Your task to perform on an android device: Open ESPN.com Image 0: 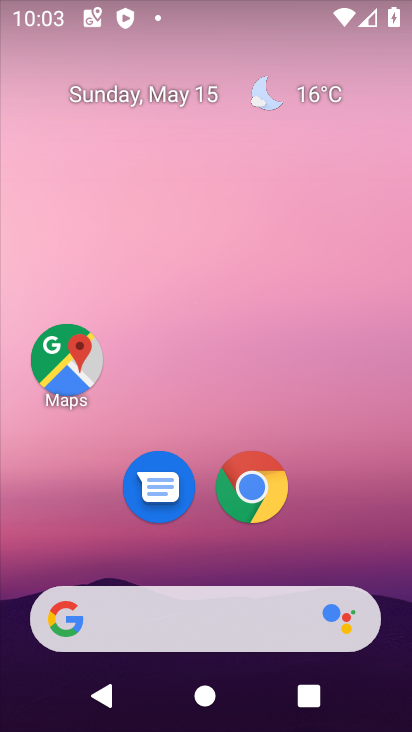
Step 0: click (253, 481)
Your task to perform on an android device: Open ESPN.com Image 1: 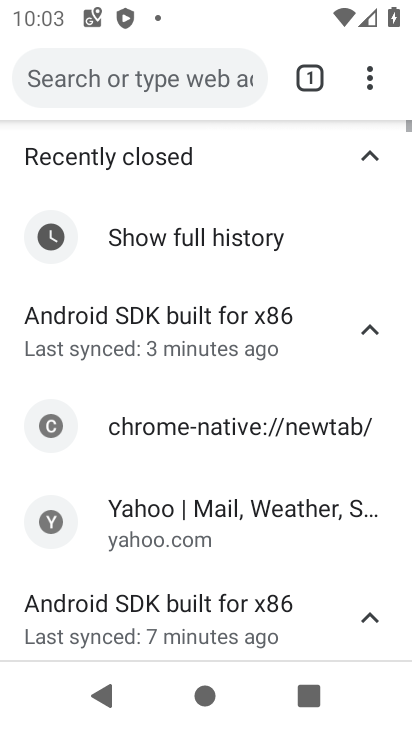
Step 1: click (102, 71)
Your task to perform on an android device: Open ESPN.com Image 2: 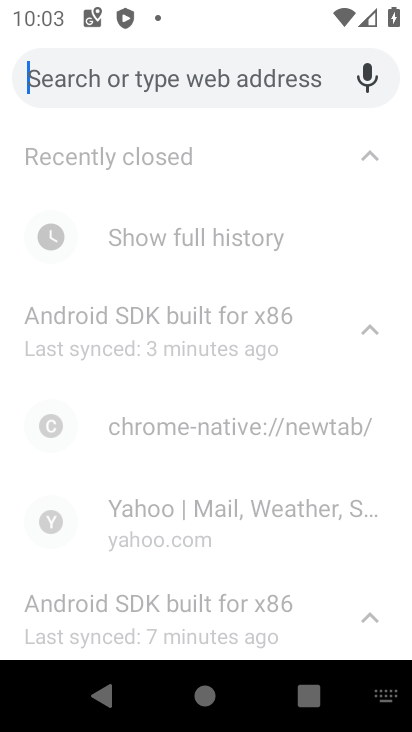
Step 2: type "espn.com"
Your task to perform on an android device: Open ESPN.com Image 3: 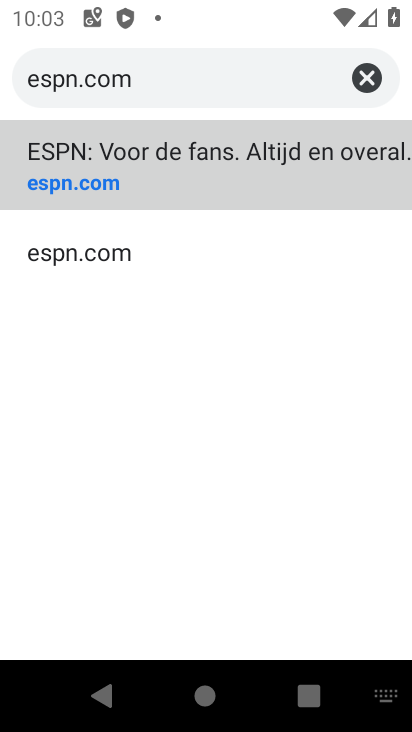
Step 3: click (86, 175)
Your task to perform on an android device: Open ESPN.com Image 4: 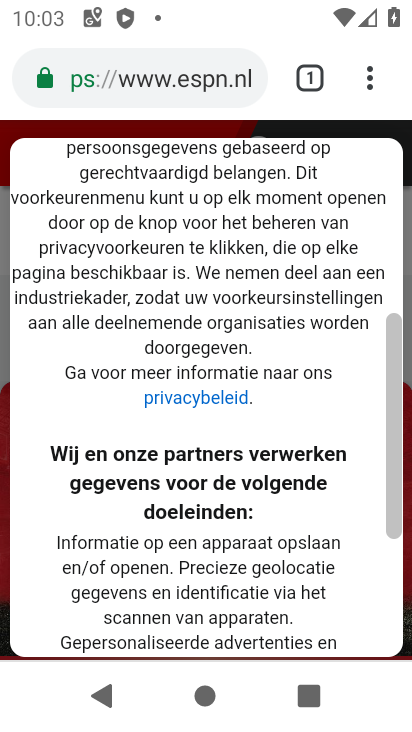
Step 4: task complete